Your task to perform on an android device: toggle javascript in the chrome app Image 0: 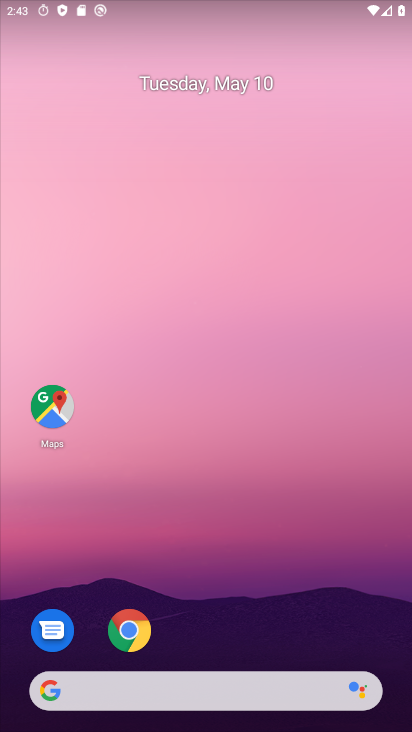
Step 0: click (129, 625)
Your task to perform on an android device: toggle javascript in the chrome app Image 1: 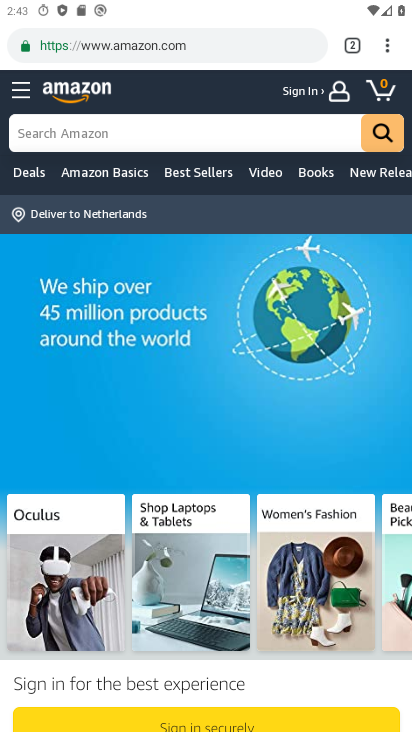
Step 1: click (395, 40)
Your task to perform on an android device: toggle javascript in the chrome app Image 2: 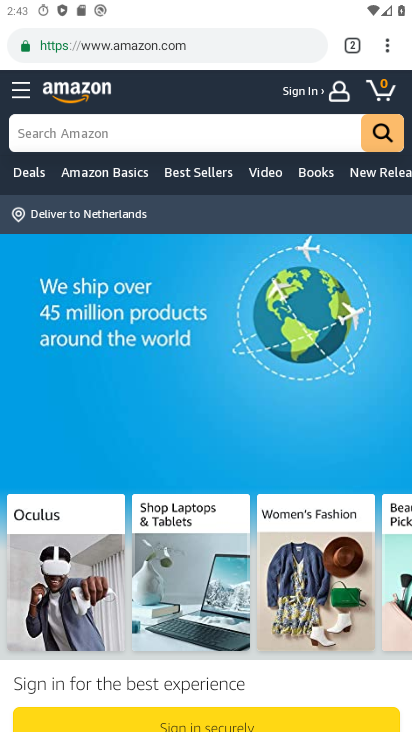
Step 2: click (391, 43)
Your task to perform on an android device: toggle javascript in the chrome app Image 3: 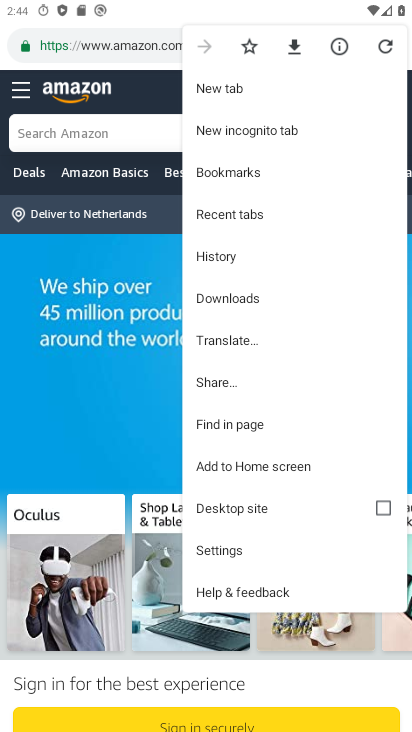
Step 3: click (245, 546)
Your task to perform on an android device: toggle javascript in the chrome app Image 4: 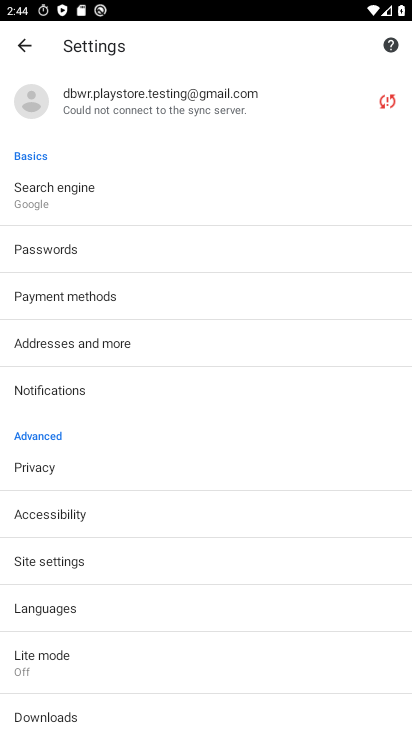
Step 4: click (51, 560)
Your task to perform on an android device: toggle javascript in the chrome app Image 5: 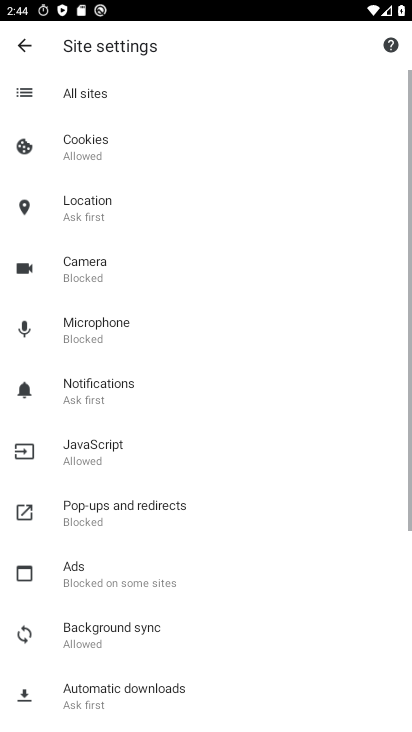
Step 5: drag from (150, 588) to (191, 17)
Your task to perform on an android device: toggle javascript in the chrome app Image 6: 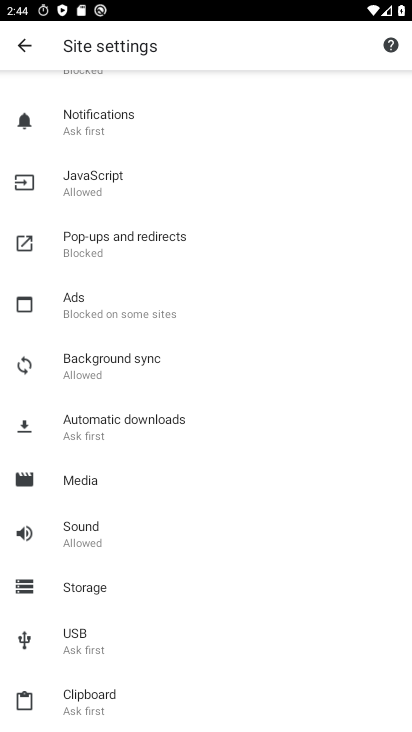
Step 6: click (104, 181)
Your task to perform on an android device: toggle javascript in the chrome app Image 7: 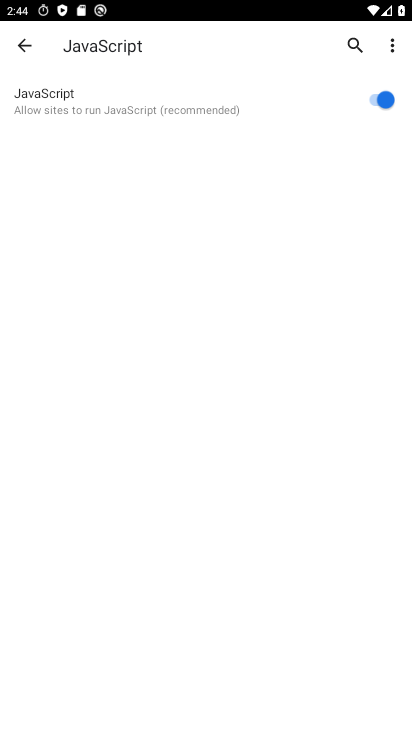
Step 7: click (385, 96)
Your task to perform on an android device: toggle javascript in the chrome app Image 8: 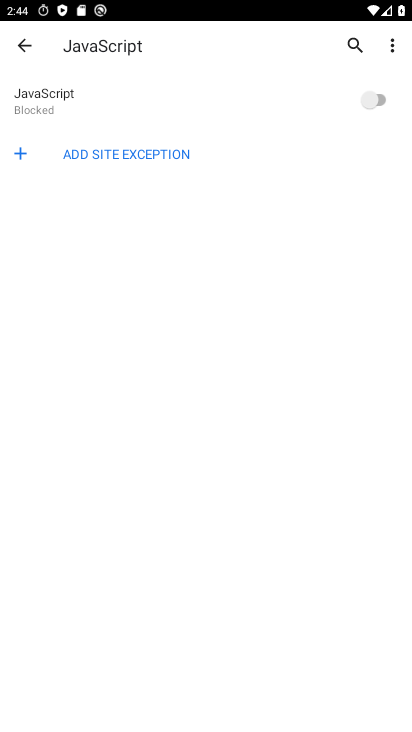
Step 8: task complete